Your task to perform on an android device: toggle notifications settings in the gmail app Image 0: 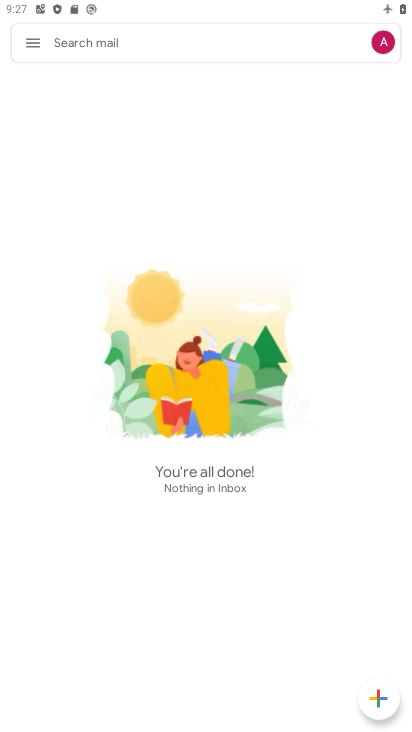
Step 0: press home button
Your task to perform on an android device: toggle notifications settings in the gmail app Image 1: 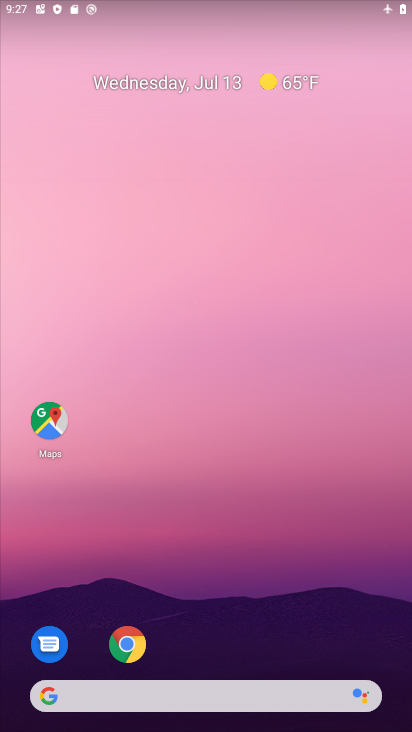
Step 1: drag from (331, 595) to (250, 11)
Your task to perform on an android device: toggle notifications settings in the gmail app Image 2: 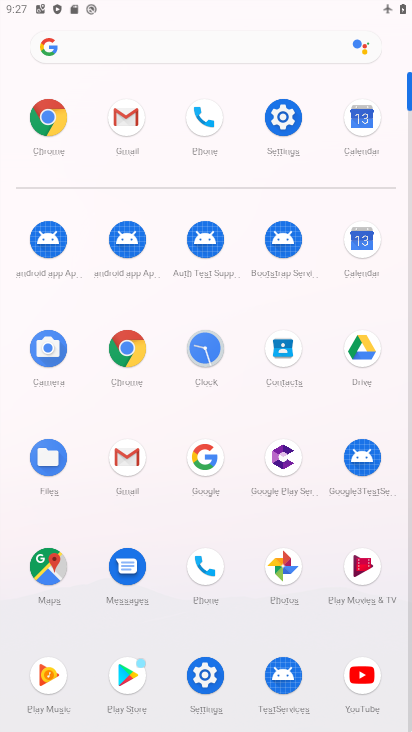
Step 2: click (119, 102)
Your task to perform on an android device: toggle notifications settings in the gmail app Image 3: 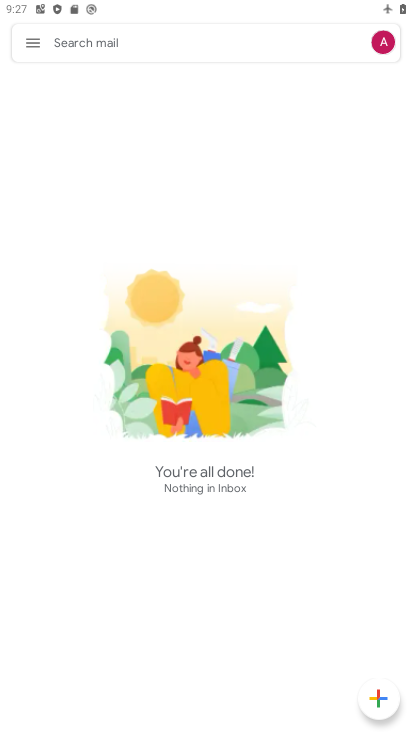
Step 3: click (27, 50)
Your task to perform on an android device: toggle notifications settings in the gmail app Image 4: 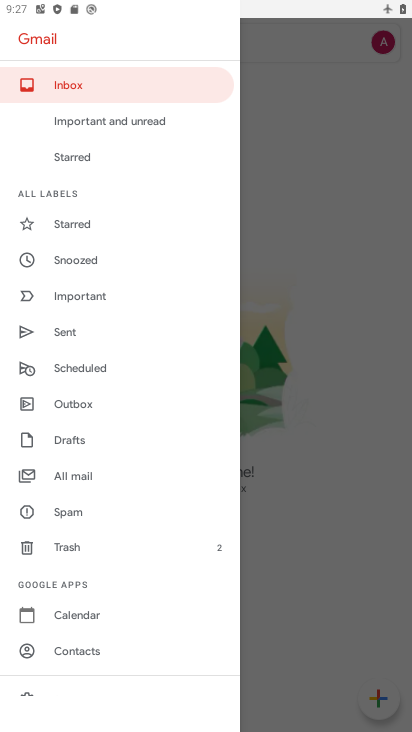
Step 4: drag from (83, 624) to (161, 137)
Your task to perform on an android device: toggle notifications settings in the gmail app Image 5: 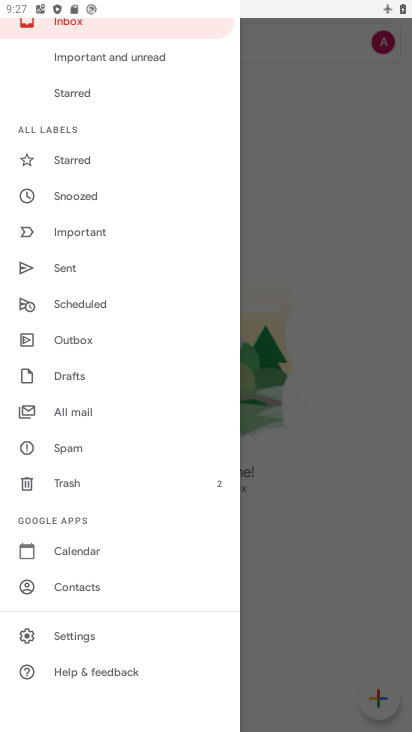
Step 5: click (71, 630)
Your task to perform on an android device: toggle notifications settings in the gmail app Image 6: 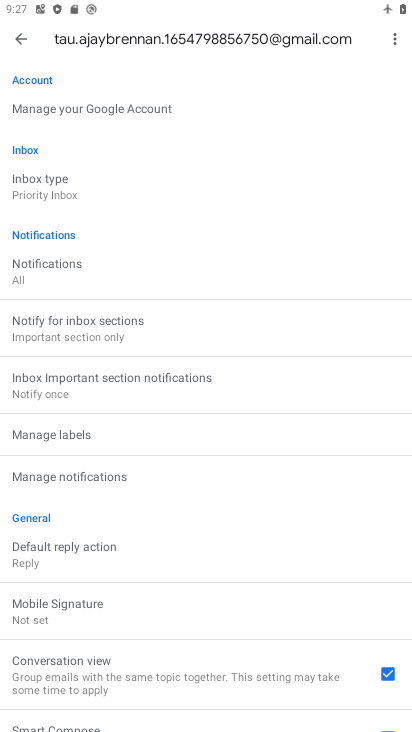
Step 6: click (19, 272)
Your task to perform on an android device: toggle notifications settings in the gmail app Image 7: 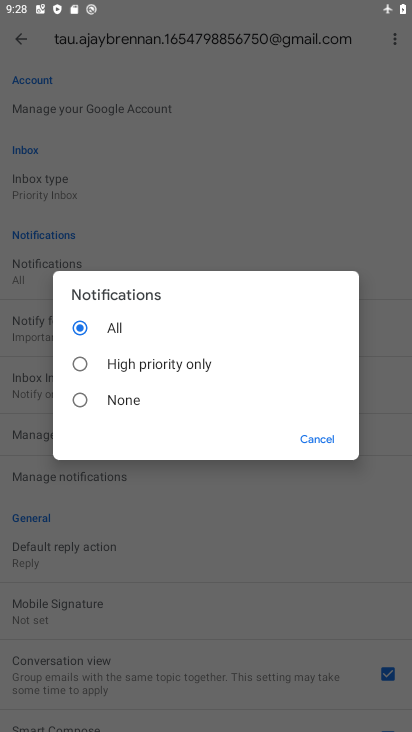
Step 7: click (129, 371)
Your task to perform on an android device: toggle notifications settings in the gmail app Image 8: 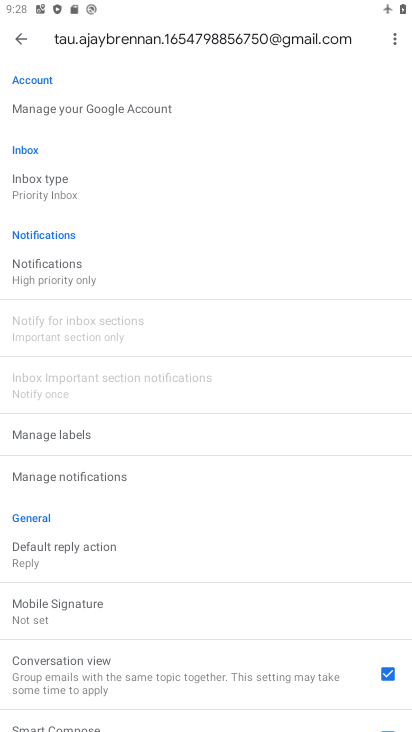
Step 8: task complete